Your task to perform on an android device: see tabs open on other devices in the chrome app Image 0: 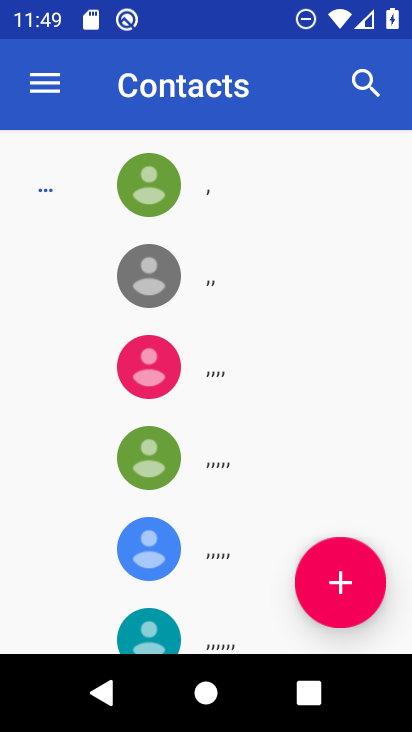
Step 0: press home button
Your task to perform on an android device: see tabs open on other devices in the chrome app Image 1: 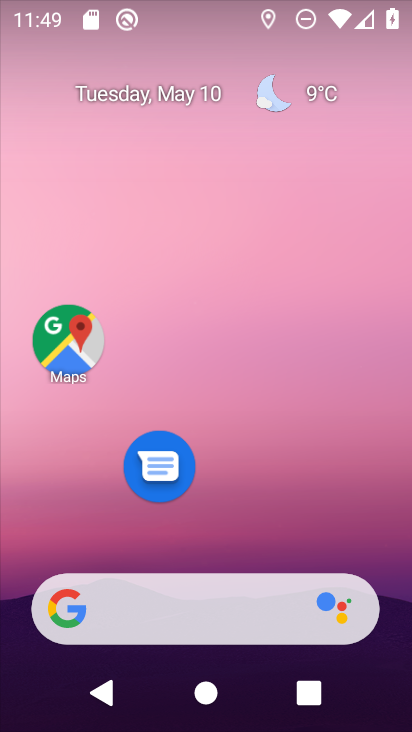
Step 1: drag from (270, 524) to (317, 110)
Your task to perform on an android device: see tabs open on other devices in the chrome app Image 2: 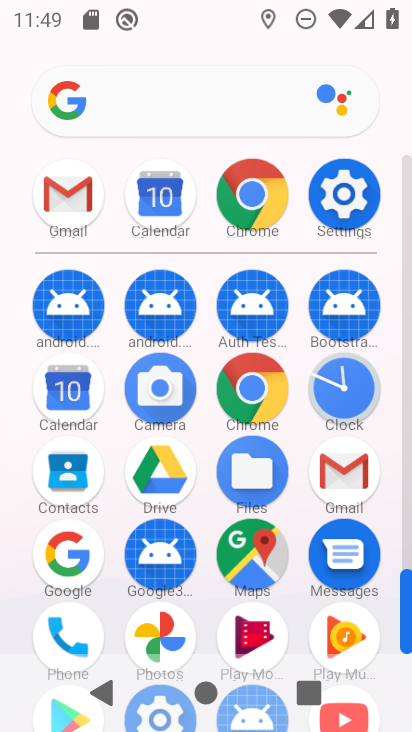
Step 2: click (247, 398)
Your task to perform on an android device: see tabs open on other devices in the chrome app Image 3: 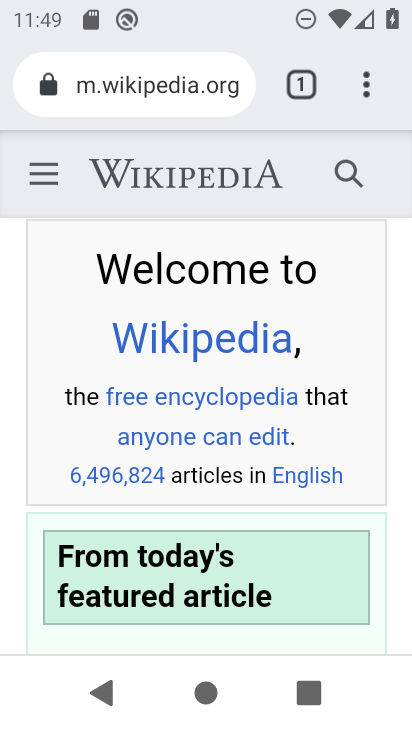
Step 3: click (369, 83)
Your task to perform on an android device: see tabs open on other devices in the chrome app Image 4: 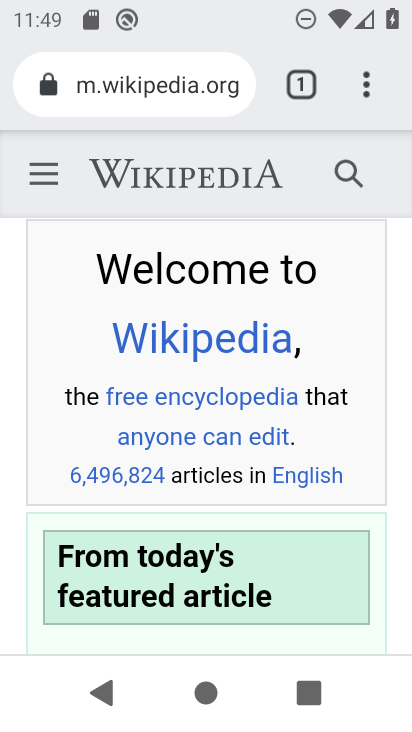
Step 4: click (386, 122)
Your task to perform on an android device: see tabs open on other devices in the chrome app Image 5: 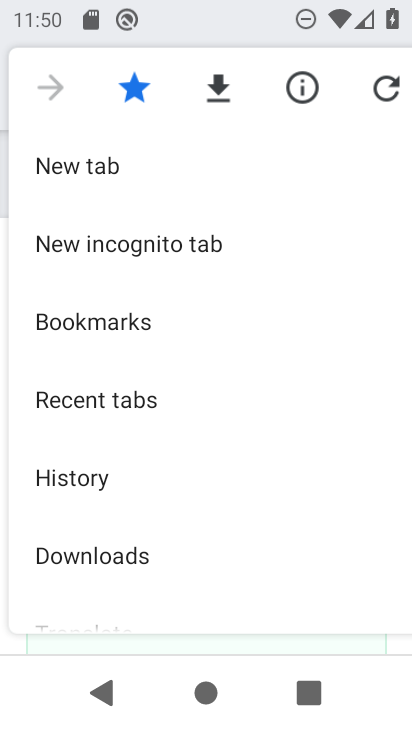
Step 5: click (136, 400)
Your task to perform on an android device: see tabs open on other devices in the chrome app Image 6: 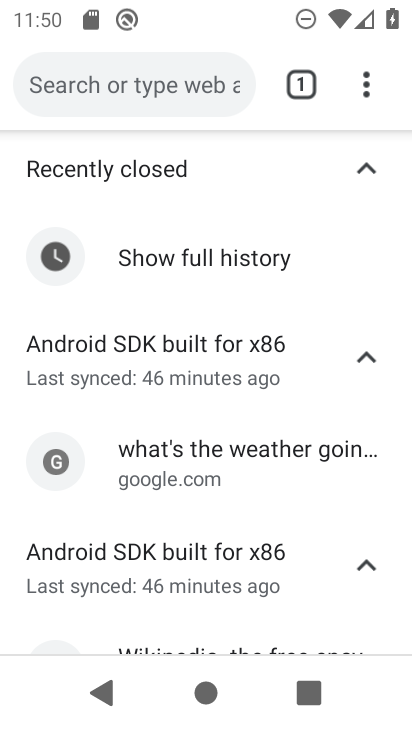
Step 6: task complete